Your task to perform on an android device: Open maps Image 0: 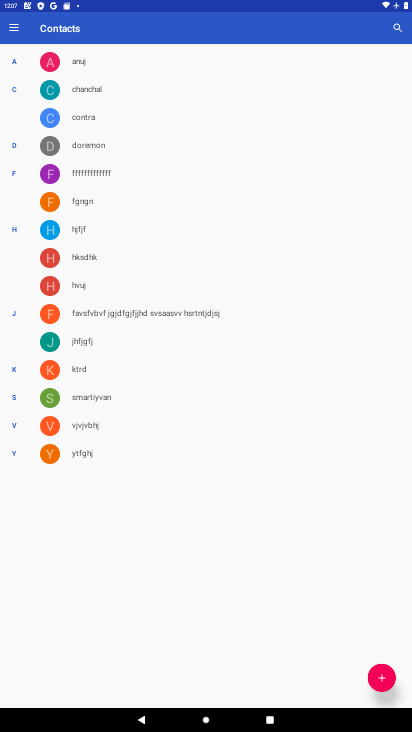
Step 0: press home button
Your task to perform on an android device: Open maps Image 1: 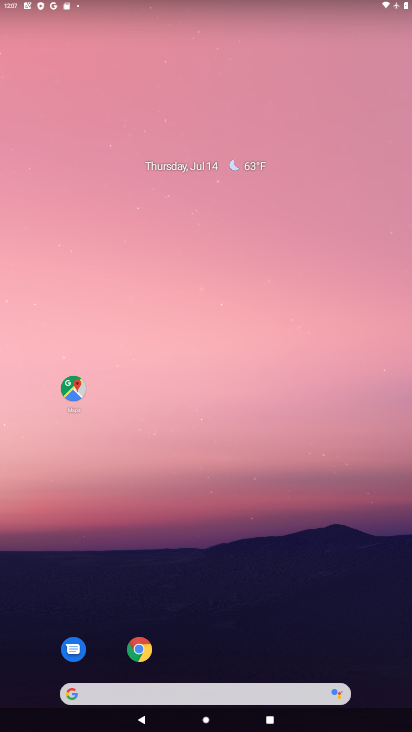
Step 1: drag from (290, 596) to (277, 263)
Your task to perform on an android device: Open maps Image 2: 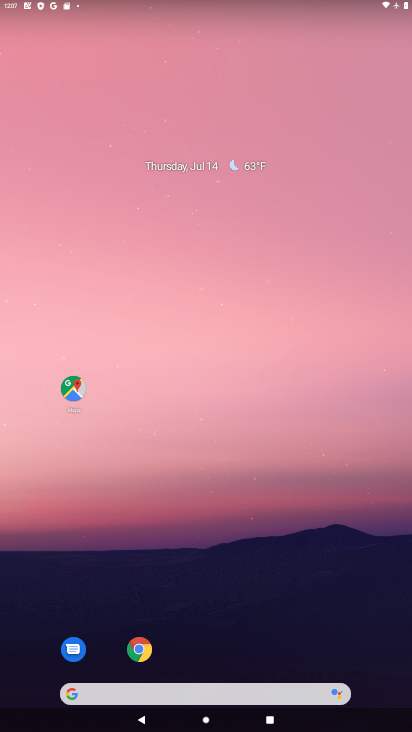
Step 2: drag from (284, 627) to (281, 179)
Your task to perform on an android device: Open maps Image 3: 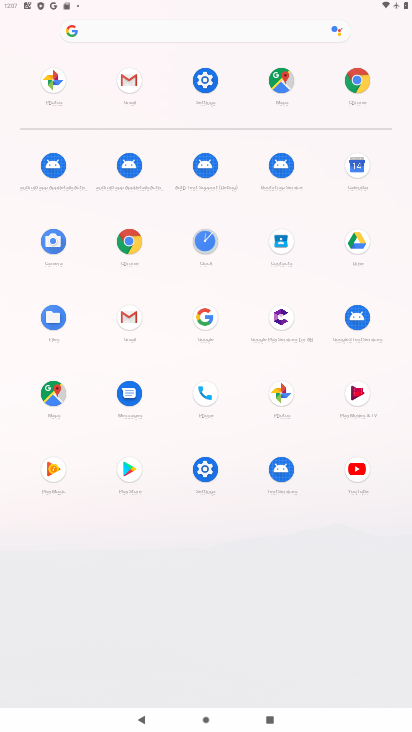
Step 3: click (288, 79)
Your task to perform on an android device: Open maps Image 4: 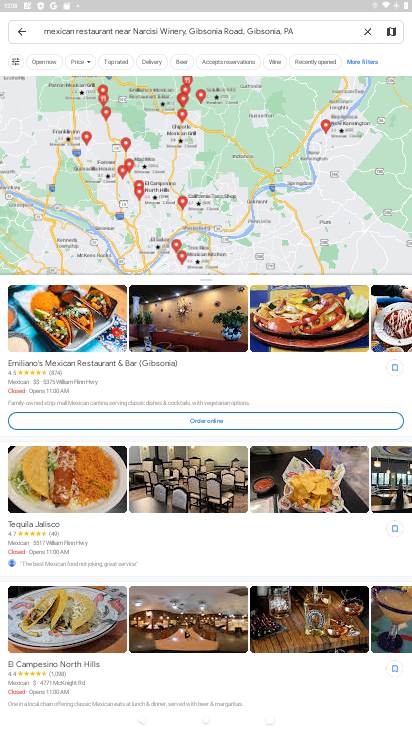
Step 4: task complete